Your task to perform on an android device: Show me popular videos on Youtube Image 0: 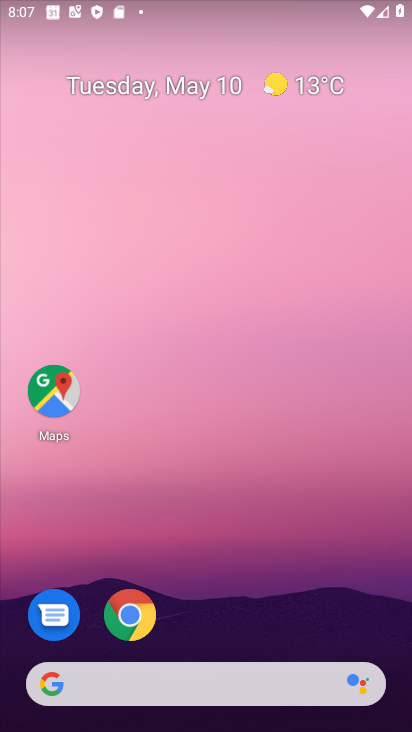
Step 0: drag from (223, 554) to (118, 85)
Your task to perform on an android device: Show me popular videos on Youtube Image 1: 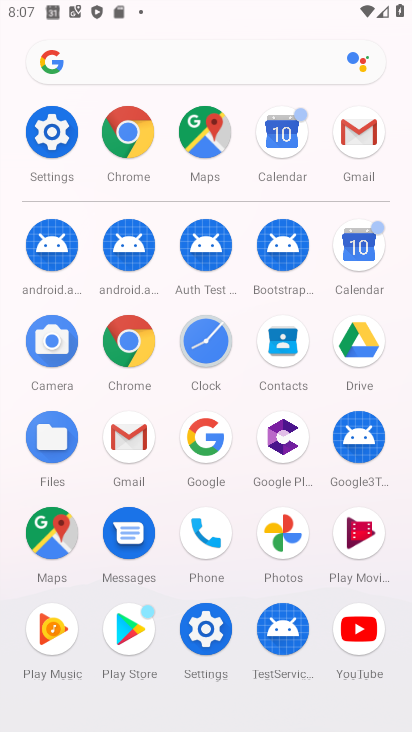
Step 1: click (355, 635)
Your task to perform on an android device: Show me popular videos on Youtube Image 2: 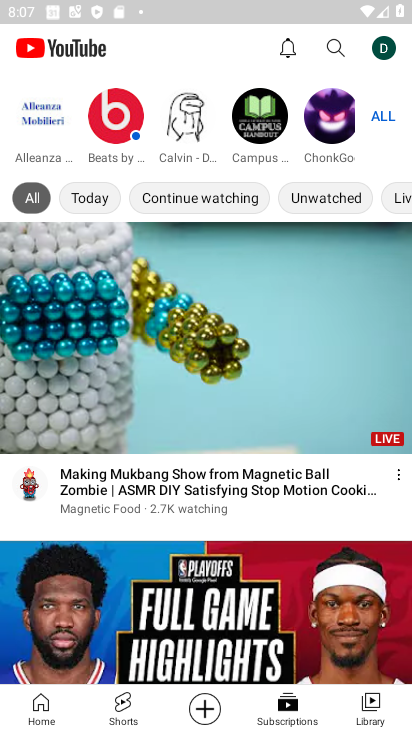
Step 2: click (112, 702)
Your task to perform on an android device: Show me popular videos on Youtube Image 3: 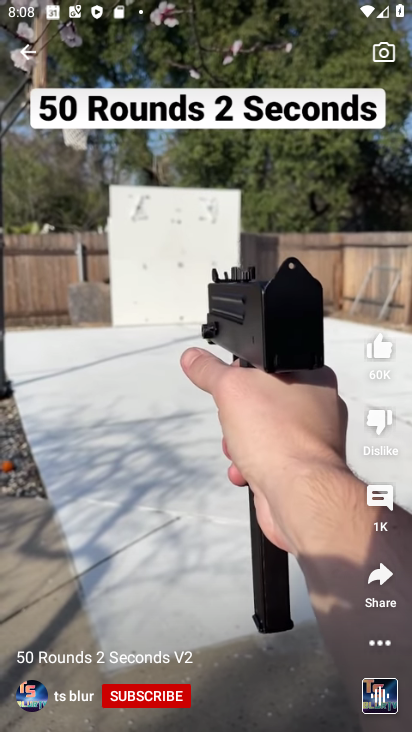
Step 3: task complete